Your task to perform on an android device: open a new tab in the chrome app Image 0: 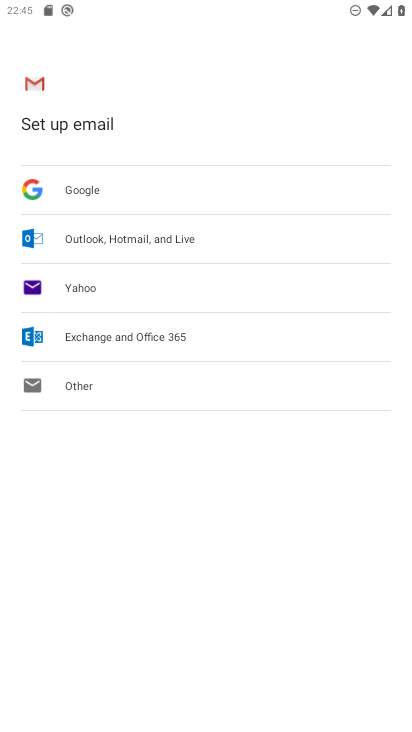
Step 0: press home button
Your task to perform on an android device: open a new tab in the chrome app Image 1: 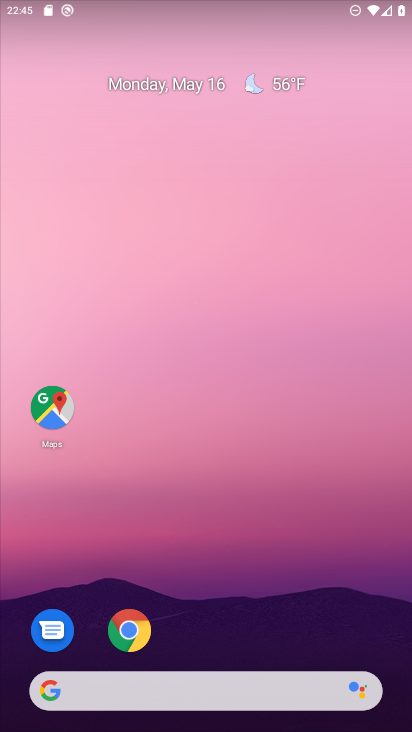
Step 1: click (132, 617)
Your task to perform on an android device: open a new tab in the chrome app Image 2: 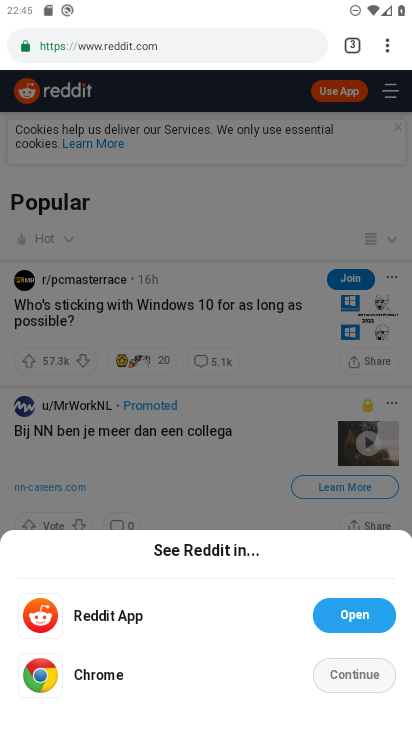
Step 2: click (385, 41)
Your task to perform on an android device: open a new tab in the chrome app Image 3: 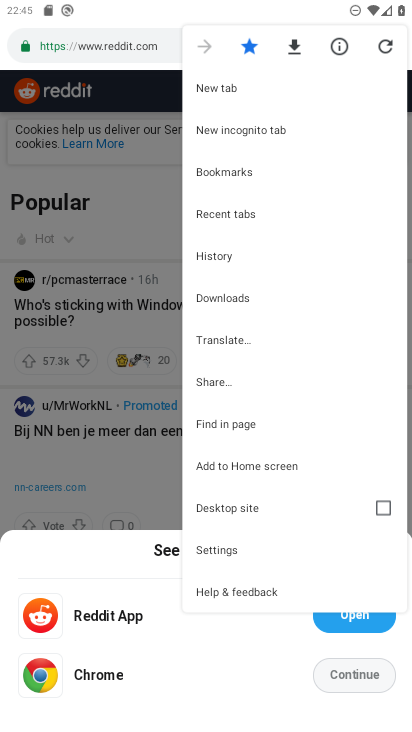
Step 3: click (227, 91)
Your task to perform on an android device: open a new tab in the chrome app Image 4: 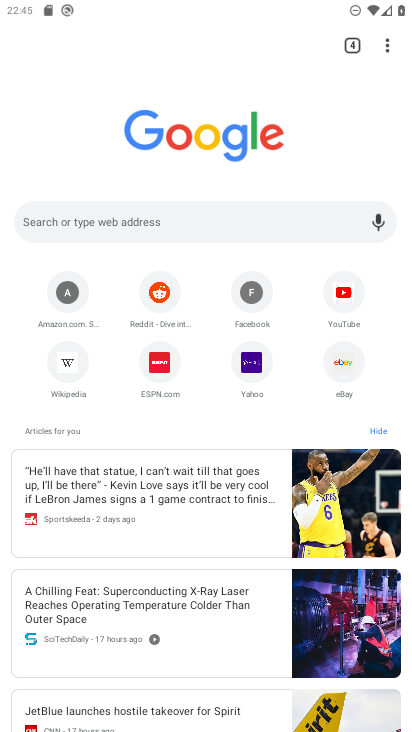
Step 4: task complete